Your task to perform on an android device: Do I have any events today? Image 0: 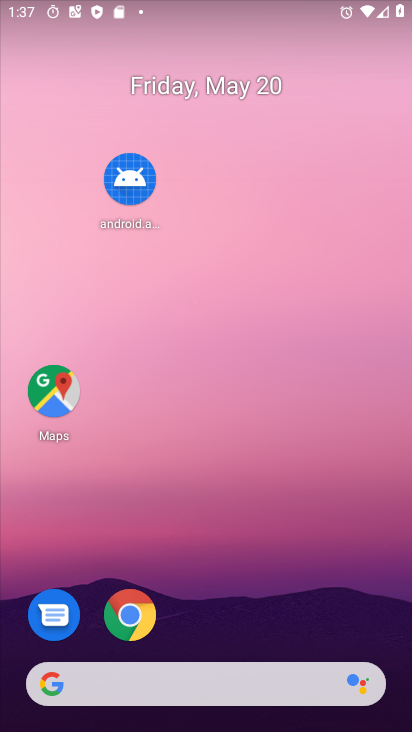
Step 0: drag from (256, 584) to (161, 19)
Your task to perform on an android device: Do I have any events today? Image 1: 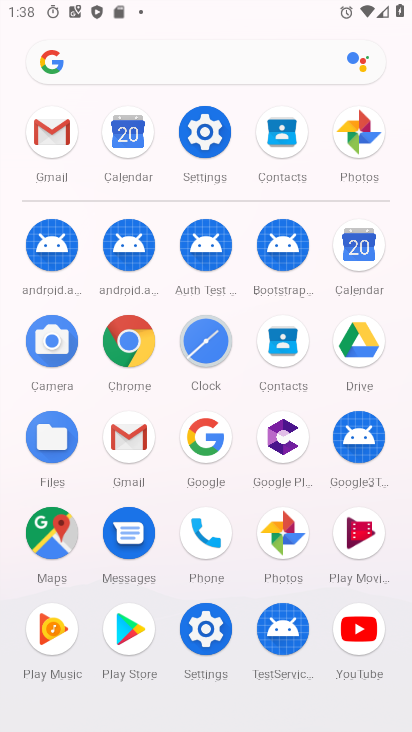
Step 1: click (340, 265)
Your task to perform on an android device: Do I have any events today? Image 2: 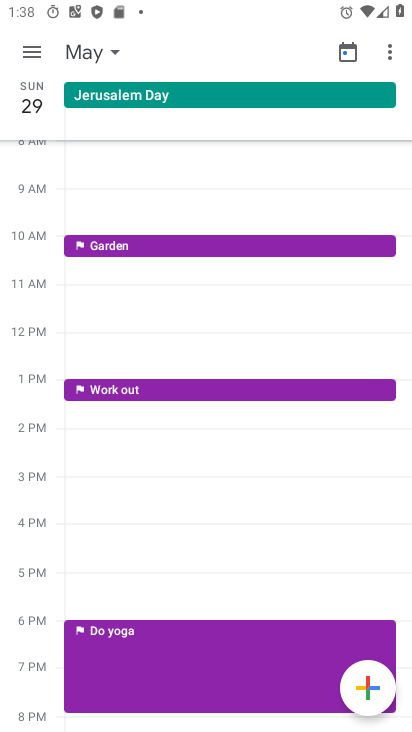
Step 2: click (25, 54)
Your task to perform on an android device: Do I have any events today? Image 3: 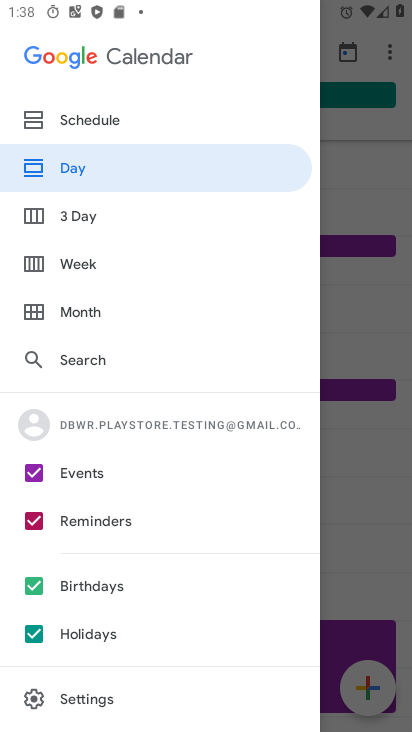
Step 3: click (105, 163)
Your task to perform on an android device: Do I have any events today? Image 4: 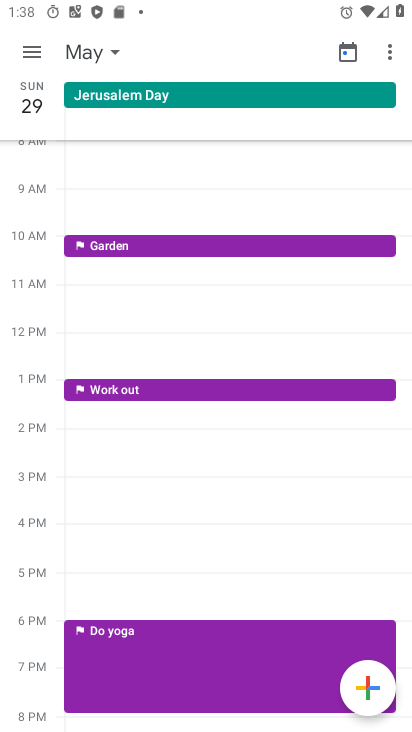
Step 4: click (101, 47)
Your task to perform on an android device: Do I have any events today? Image 5: 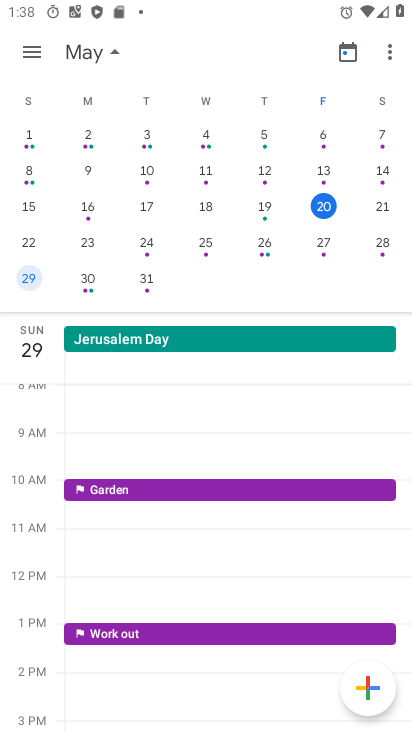
Step 5: click (326, 203)
Your task to perform on an android device: Do I have any events today? Image 6: 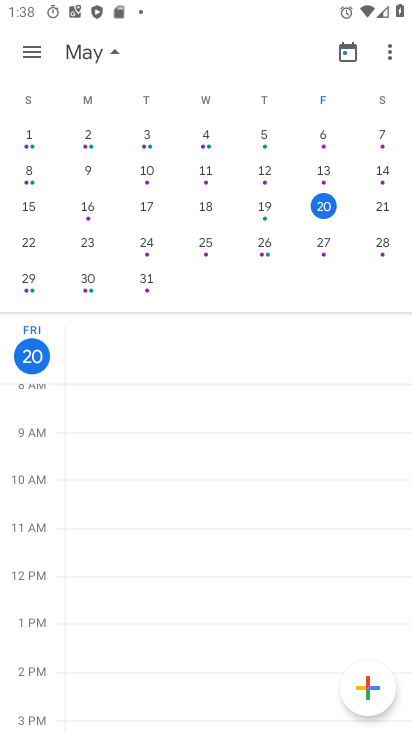
Step 6: task complete